Your task to perform on an android device: open app "Speedtest by Ookla" (install if not already installed) and go to login screen Image 0: 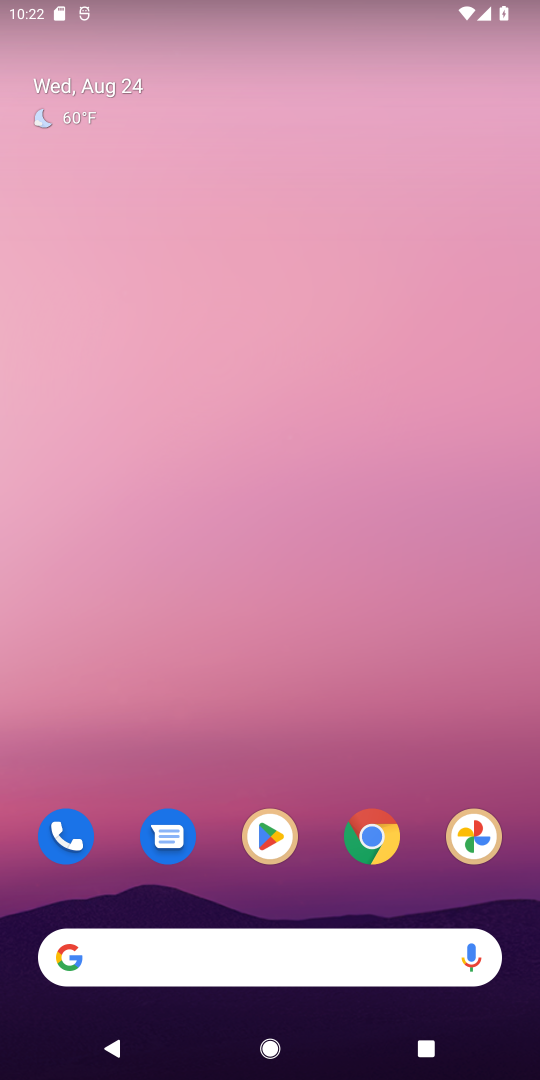
Step 0: click (272, 852)
Your task to perform on an android device: open app "Speedtest by Ookla" (install if not already installed) and go to login screen Image 1: 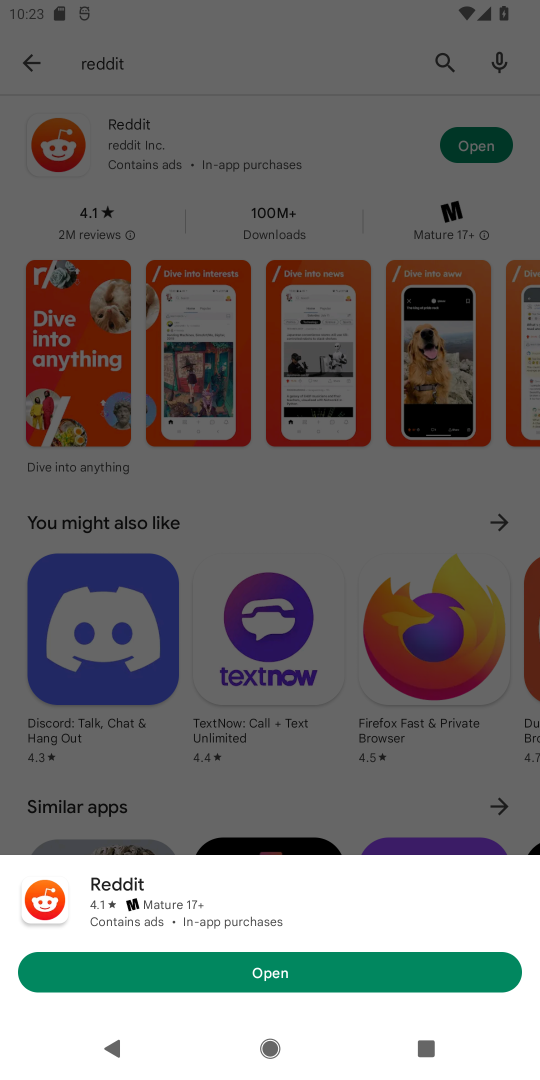
Step 1: click (474, 51)
Your task to perform on an android device: open app "Speedtest by Ookla" (install if not already installed) and go to login screen Image 2: 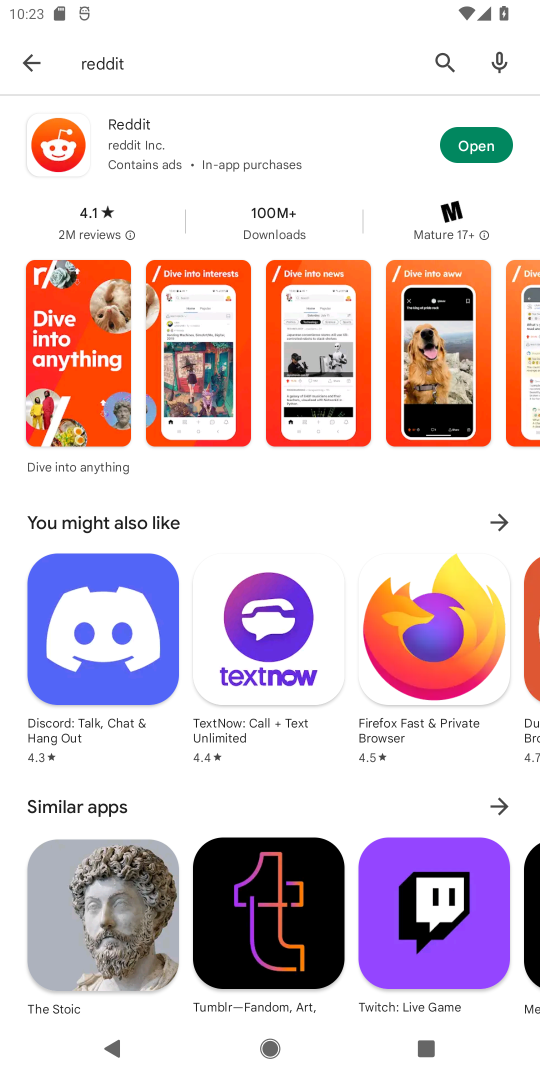
Step 2: click (437, 61)
Your task to perform on an android device: open app "Speedtest by Ookla" (install if not already installed) and go to login screen Image 3: 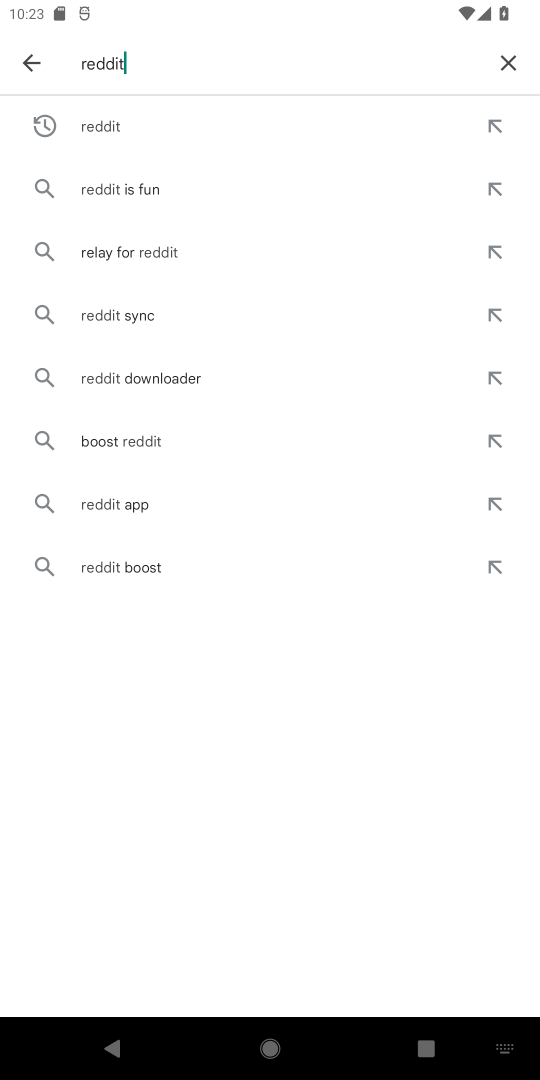
Step 3: click (502, 70)
Your task to perform on an android device: open app "Speedtest by Ookla" (install if not already installed) and go to login screen Image 4: 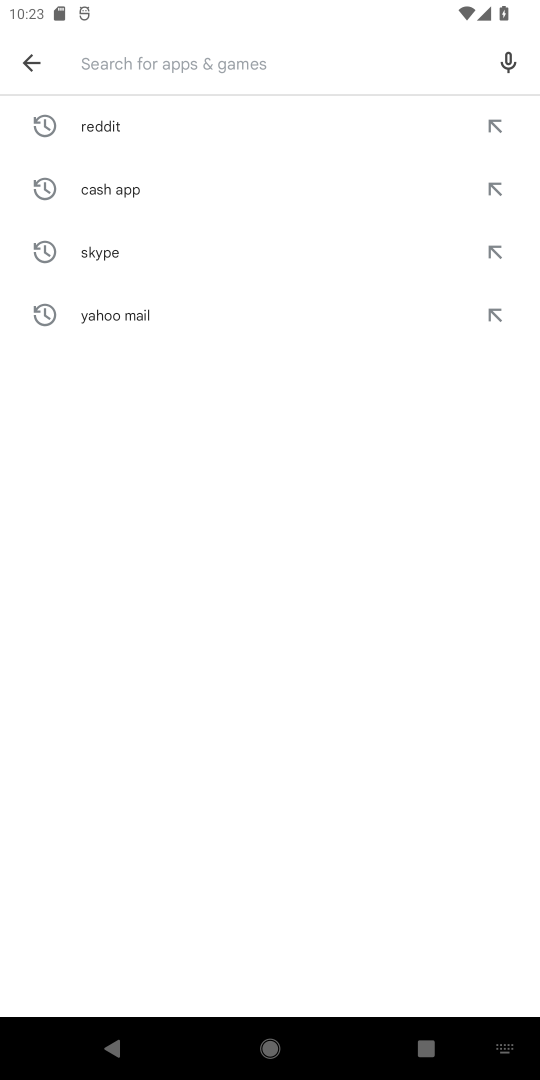
Step 4: type "Speedtest by Ookla"
Your task to perform on an android device: open app "Speedtest by Ookla" (install if not already installed) and go to login screen Image 5: 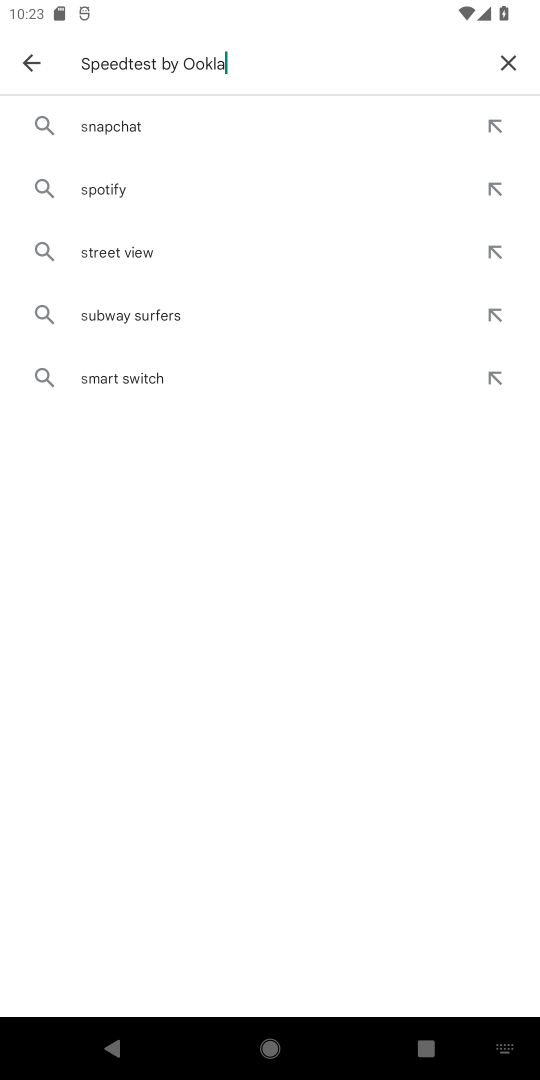
Step 5: type ""
Your task to perform on an android device: open app "Speedtest by Ookla" (install if not already installed) and go to login screen Image 6: 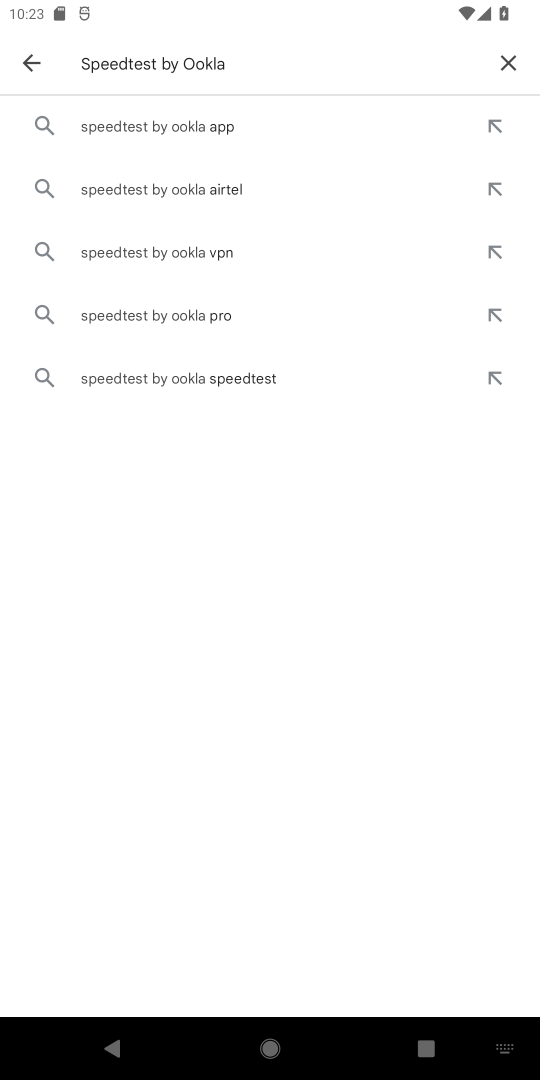
Step 6: click (141, 129)
Your task to perform on an android device: open app "Speedtest by Ookla" (install if not already installed) and go to login screen Image 7: 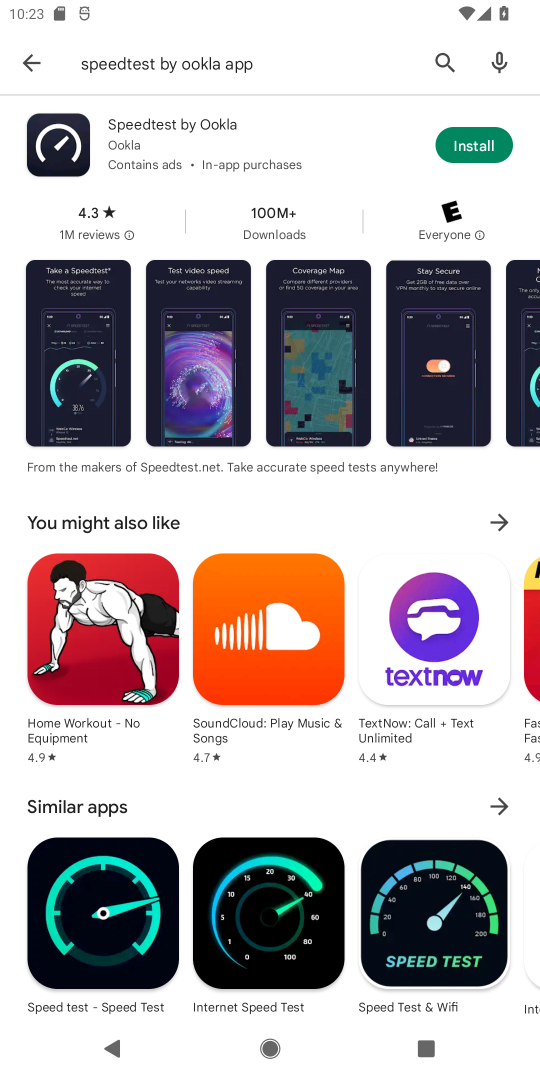
Step 7: click (464, 152)
Your task to perform on an android device: open app "Speedtest by Ookla" (install if not already installed) and go to login screen Image 8: 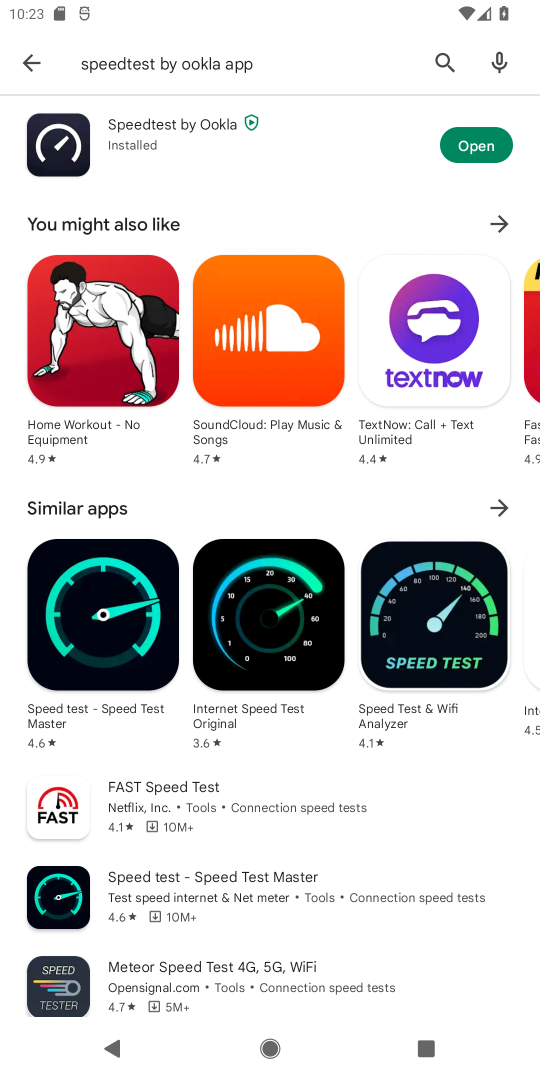
Step 8: click (471, 140)
Your task to perform on an android device: open app "Speedtest by Ookla" (install if not already installed) and go to login screen Image 9: 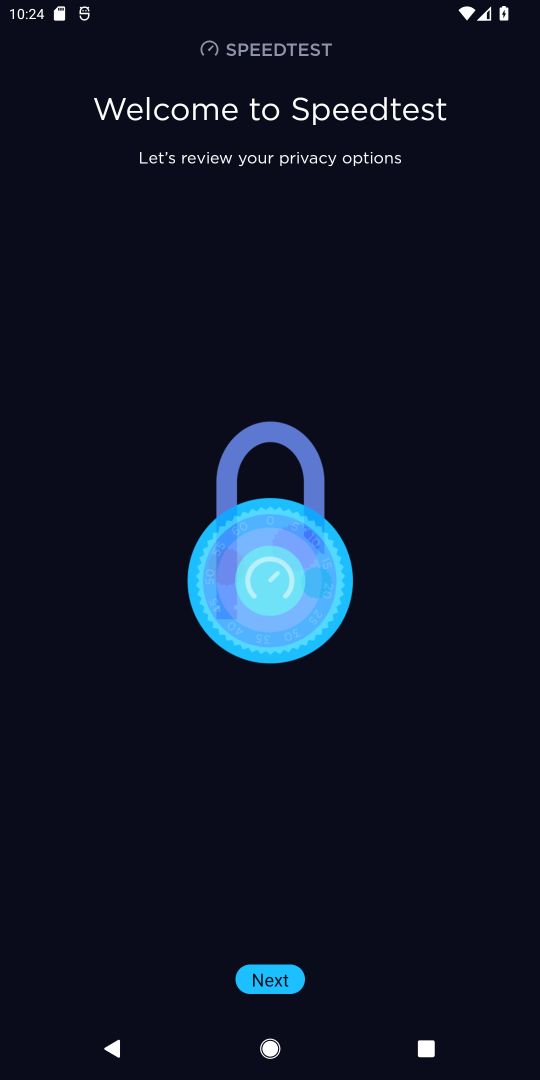
Step 9: task complete